Your task to perform on an android device: Open Google Image 0: 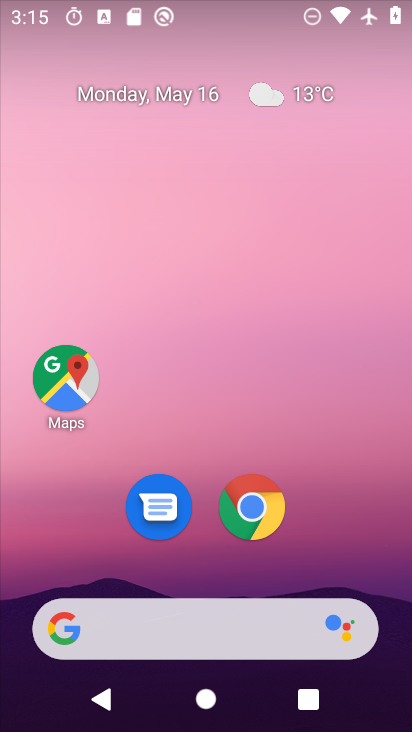
Step 0: drag from (329, 558) to (335, 202)
Your task to perform on an android device: Open Google Image 1: 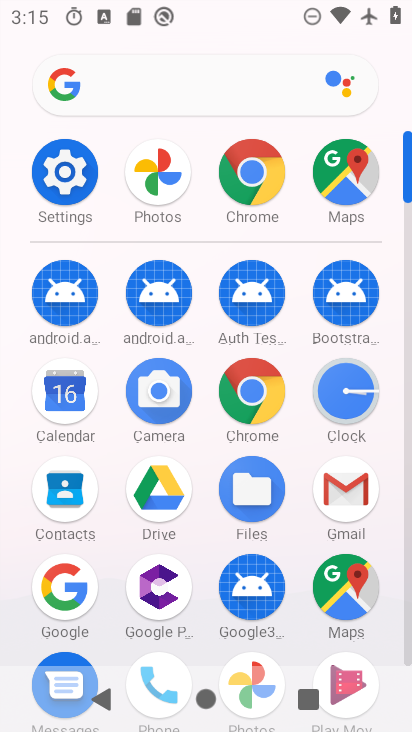
Step 1: click (64, 586)
Your task to perform on an android device: Open Google Image 2: 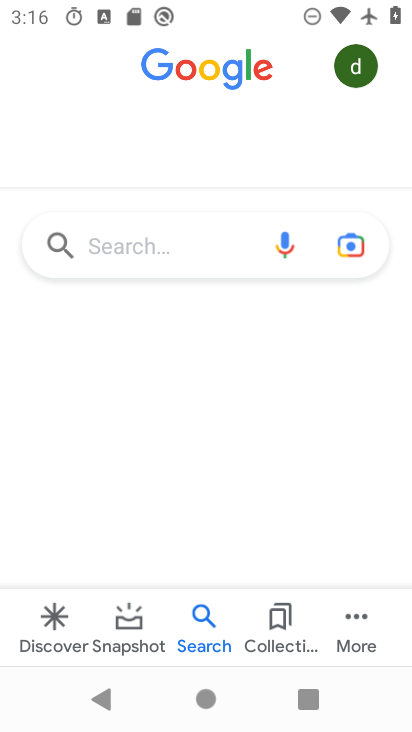
Step 2: click (65, 626)
Your task to perform on an android device: Open Google Image 3: 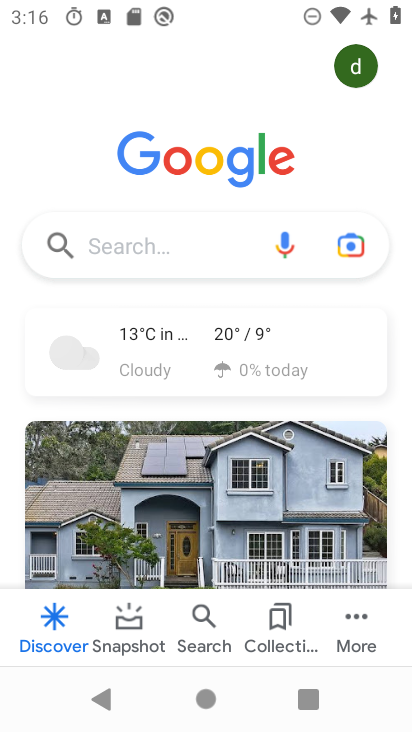
Step 3: task complete